Your task to perform on an android device: open wifi settings Image 0: 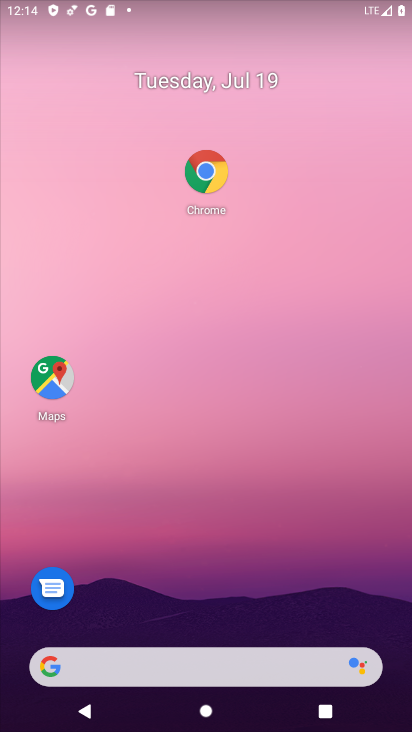
Step 0: drag from (128, 226) to (89, 576)
Your task to perform on an android device: open wifi settings Image 1: 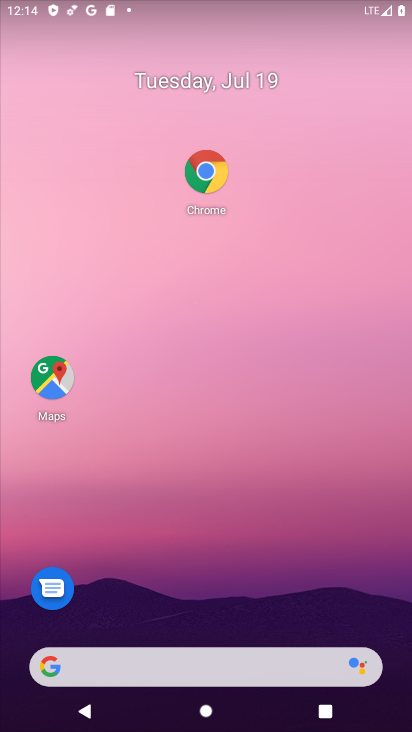
Step 1: drag from (155, 12) to (165, 474)
Your task to perform on an android device: open wifi settings Image 2: 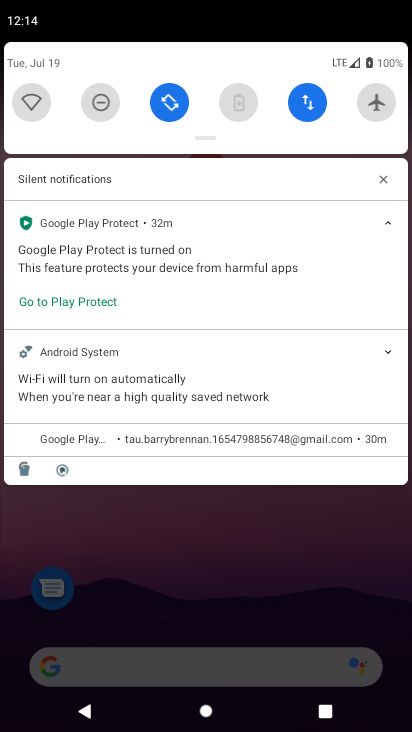
Step 2: click (146, 521)
Your task to perform on an android device: open wifi settings Image 3: 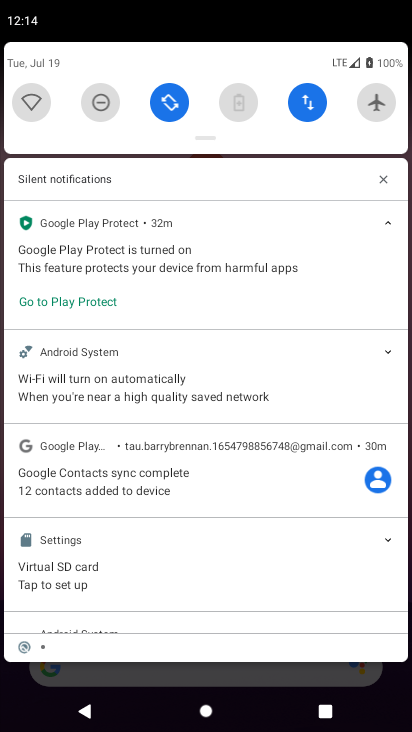
Step 3: drag from (163, 564) to (144, 722)
Your task to perform on an android device: open wifi settings Image 4: 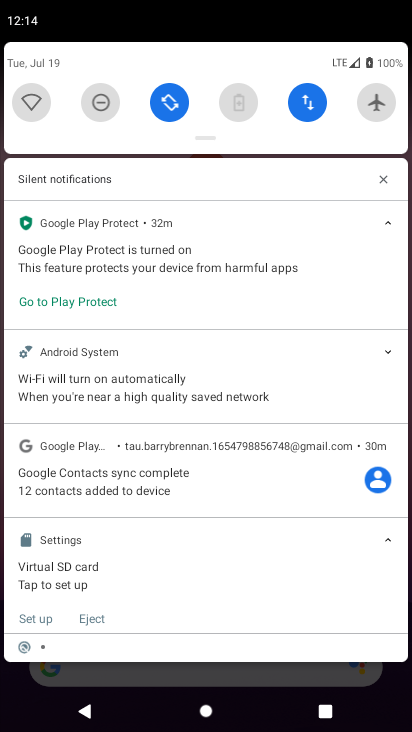
Step 4: drag from (180, 374) to (206, 687)
Your task to perform on an android device: open wifi settings Image 5: 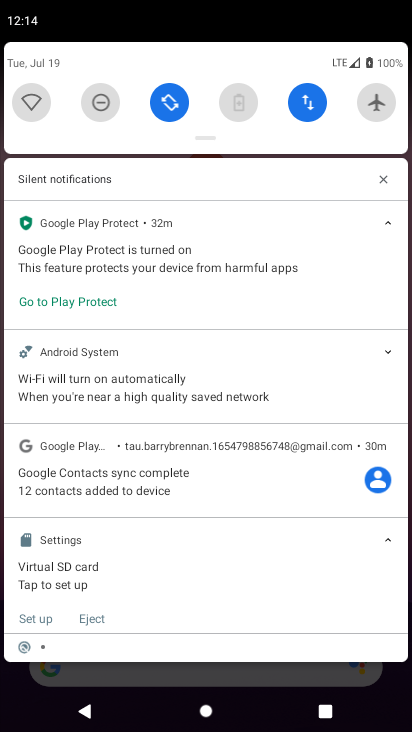
Step 5: click (159, 511)
Your task to perform on an android device: open wifi settings Image 6: 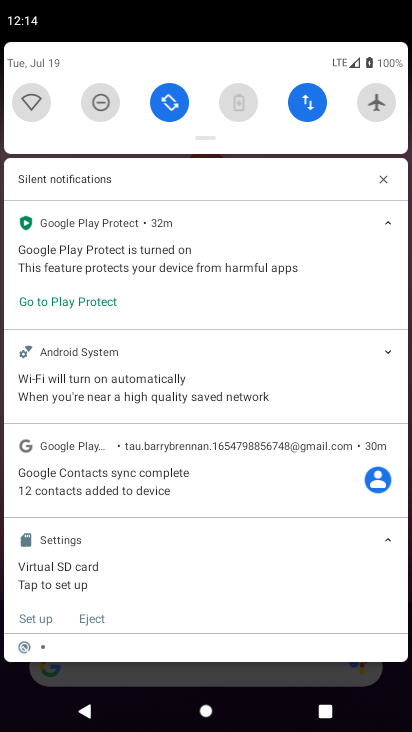
Step 6: drag from (188, 132) to (209, 456)
Your task to perform on an android device: open wifi settings Image 7: 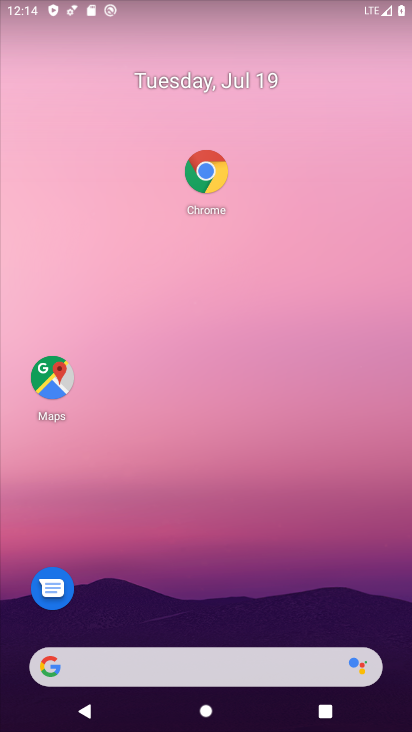
Step 7: drag from (149, 14) to (107, 522)
Your task to perform on an android device: open wifi settings Image 8: 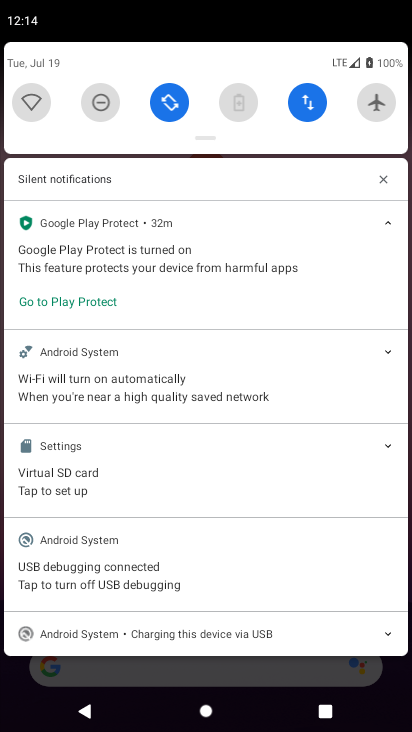
Step 8: click (39, 103)
Your task to perform on an android device: open wifi settings Image 9: 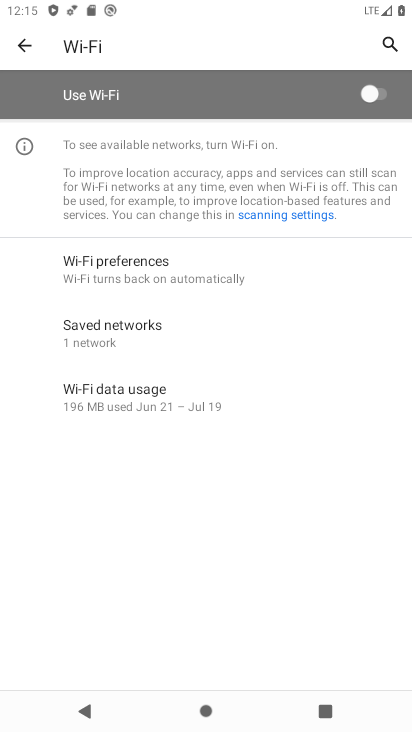
Step 9: task complete